Your task to perform on an android device: toggle location history Image 0: 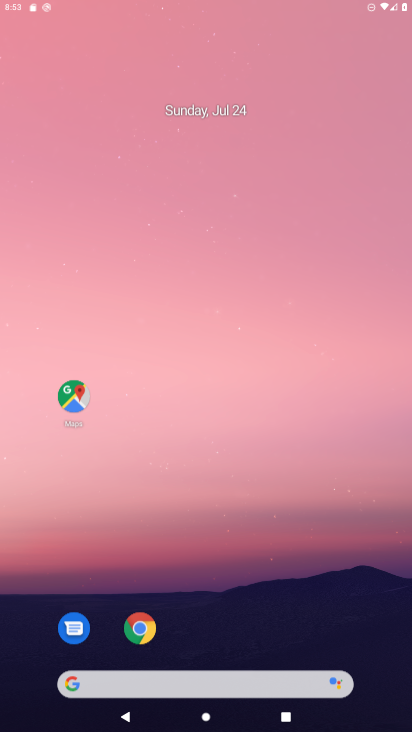
Step 0: drag from (185, 296) to (79, 64)
Your task to perform on an android device: toggle location history Image 1: 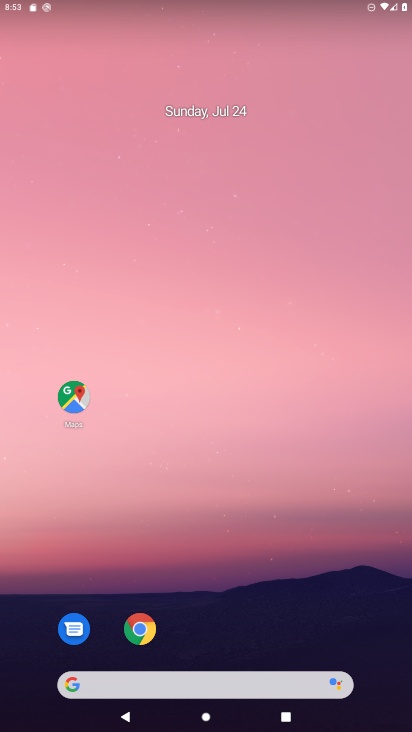
Step 1: drag from (354, 623) to (43, 22)
Your task to perform on an android device: toggle location history Image 2: 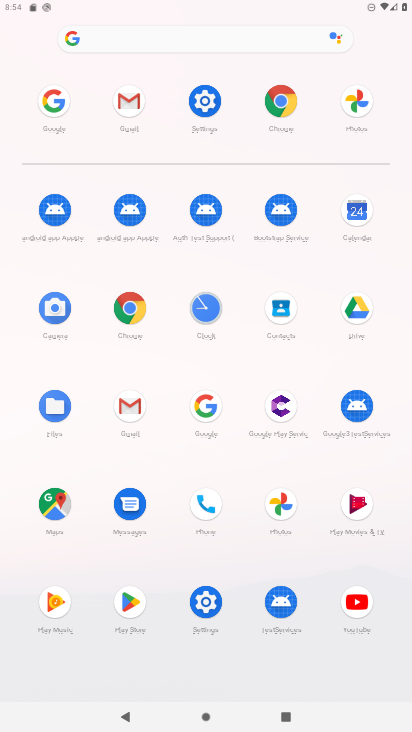
Step 2: click (204, 607)
Your task to perform on an android device: toggle location history Image 3: 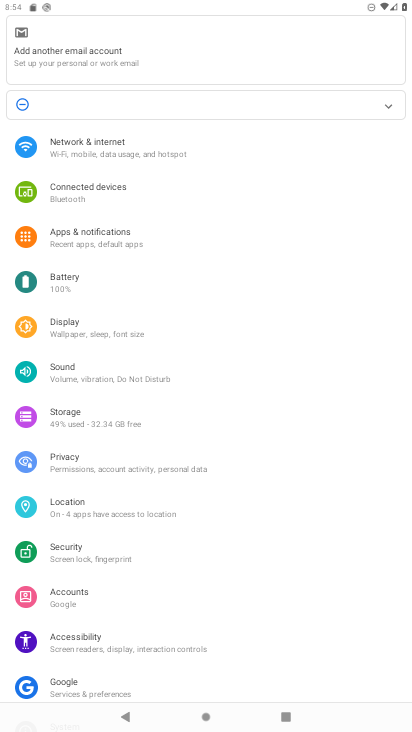
Step 3: click (69, 506)
Your task to perform on an android device: toggle location history Image 4: 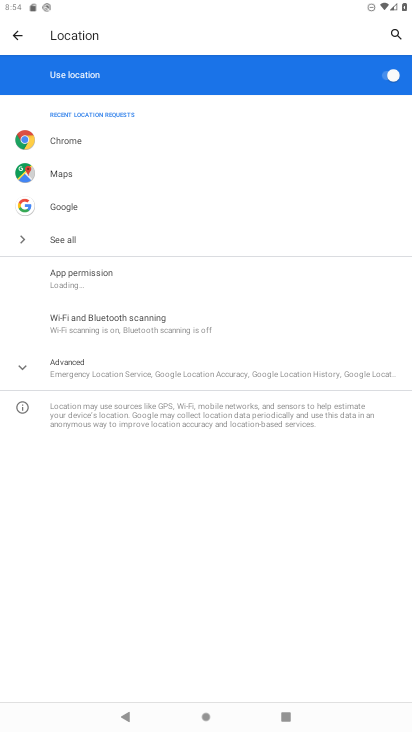
Step 4: click (71, 363)
Your task to perform on an android device: toggle location history Image 5: 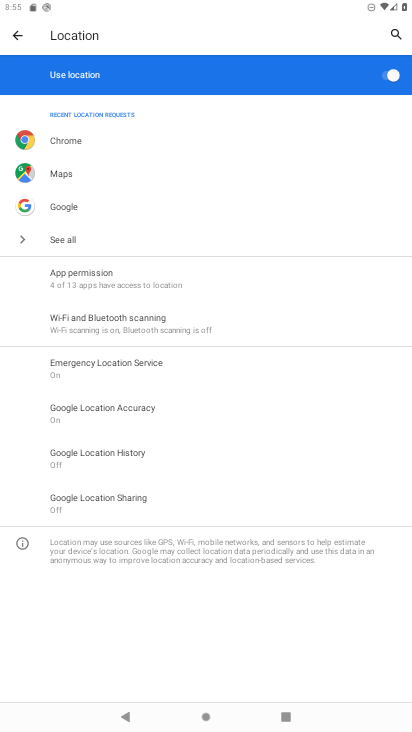
Step 5: click (120, 459)
Your task to perform on an android device: toggle location history Image 6: 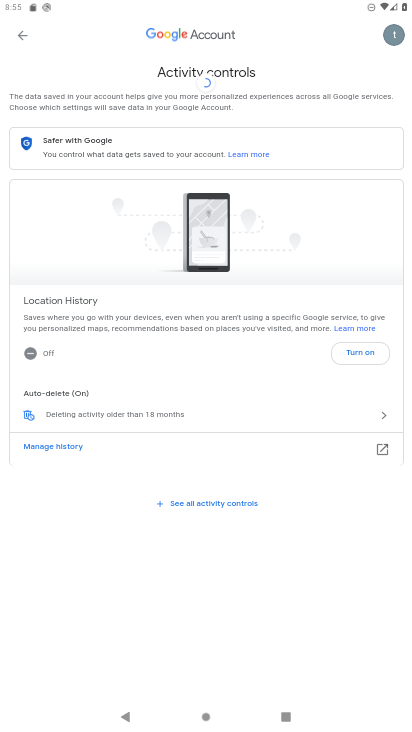
Step 6: click (351, 351)
Your task to perform on an android device: toggle location history Image 7: 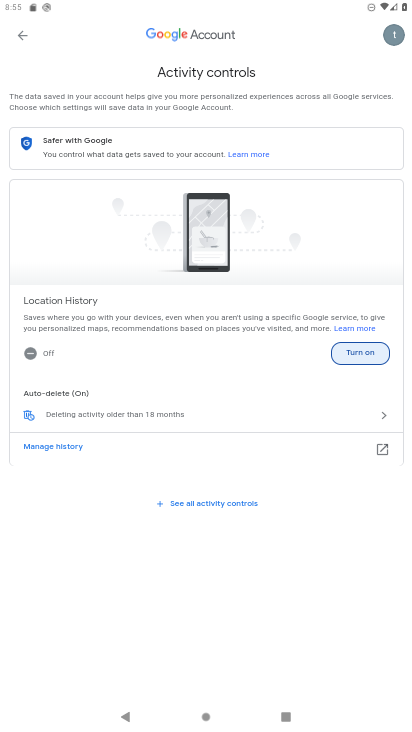
Step 7: click (371, 353)
Your task to perform on an android device: toggle location history Image 8: 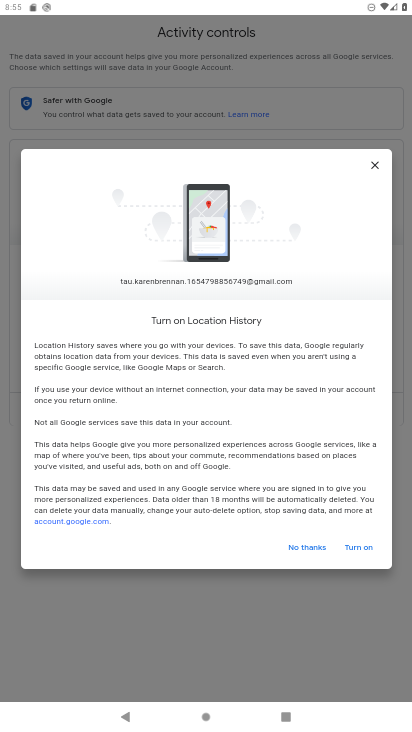
Step 8: task complete